Your task to perform on an android device: Open the Play Movies app and select the watchlist tab. Image 0: 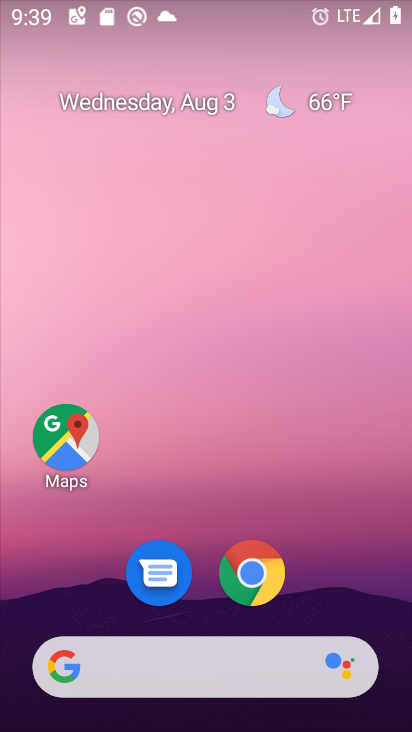
Step 0: drag from (328, 609) to (328, 21)
Your task to perform on an android device: Open the Play Movies app and select the watchlist tab. Image 1: 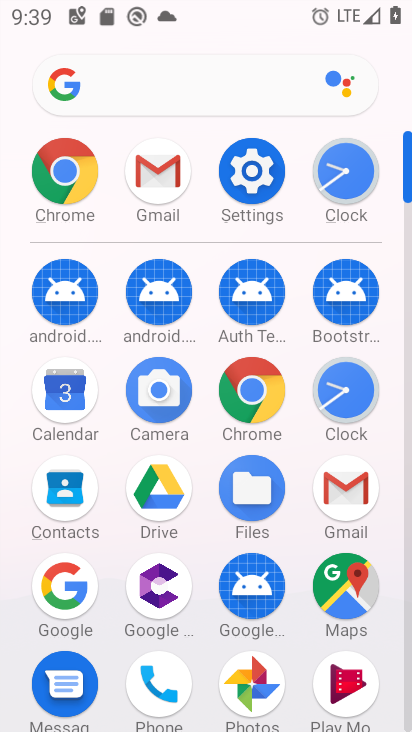
Step 1: click (411, 533)
Your task to perform on an android device: Open the Play Movies app and select the watchlist tab. Image 2: 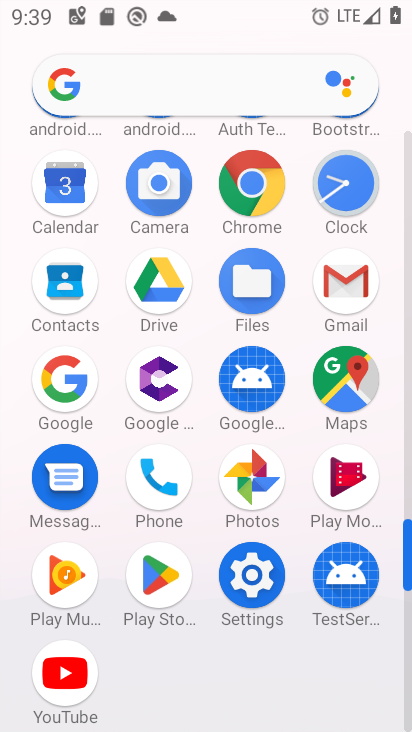
Step 2: click (346, 478)
Your task to perform on an android device: Open the Play Movies app and select the watchlist tab. Image 3: 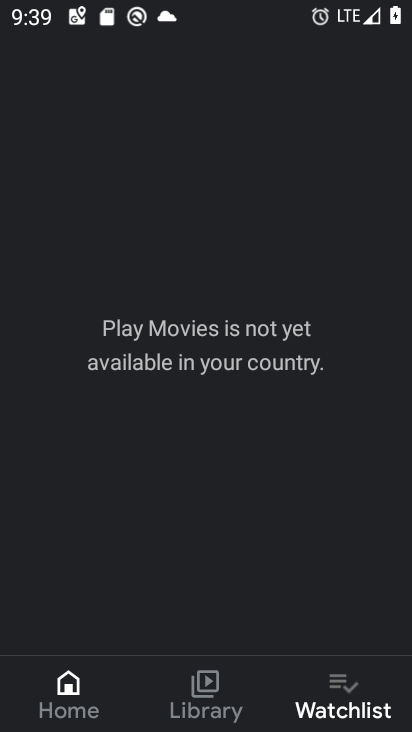
Step 3: click (347, 712)
Your task to perform on an android device: Open the Play Movies app and select the watchlist tab. Image 4: 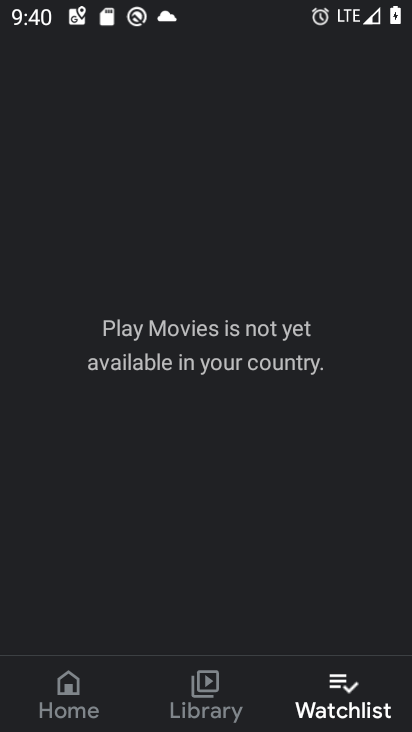
Step 4: click (347, 712)
Your task to perform on an android device: Open the Play Movies app and select the watchlist tab. Image 5: 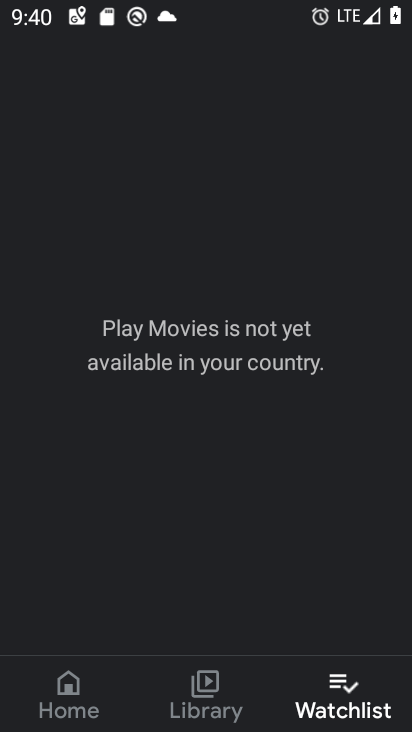
Step 5: task complete